Your task to perform on an android device: What is the recent news? Image 0: 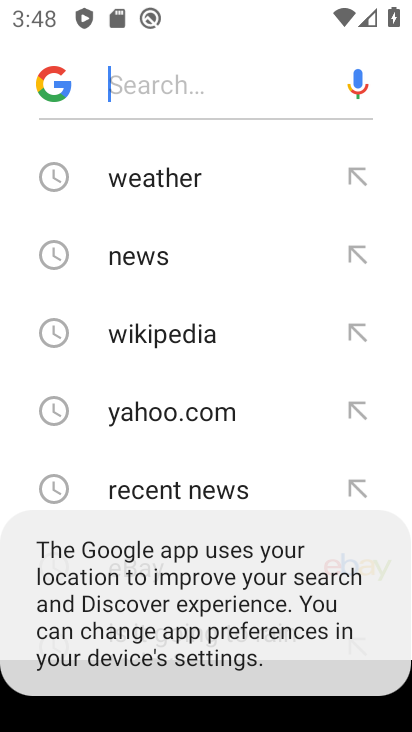
Step 0: press home button
Your task to perform on an android device: What is the recent news? Image 1: 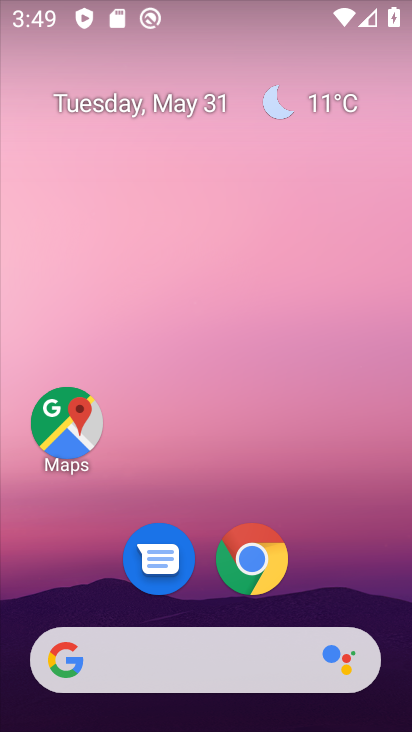
Step 1: click (215, 656)
Your task to perform on an android device: What is the recent news? Image 2: 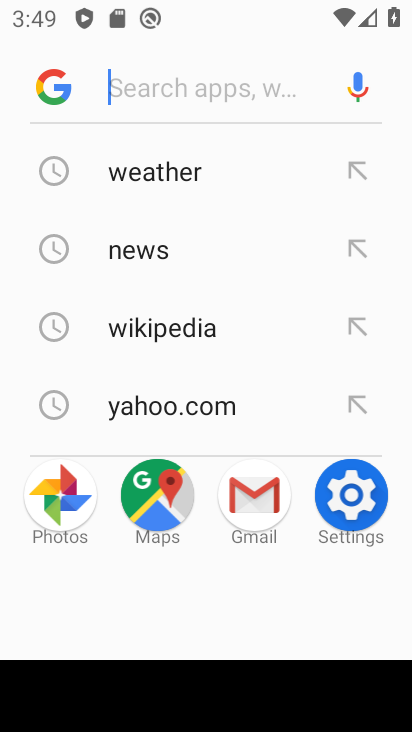
Step 2: type "what is the recent news"
Your task to perform on an android device: What is the recent news? Image 3: 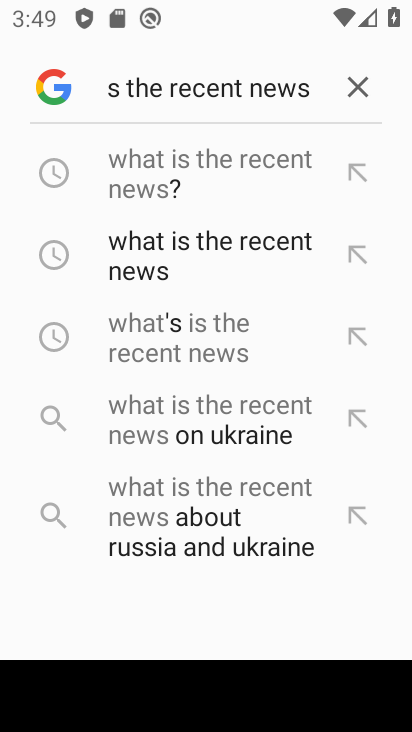
Step 3: click (114, 170)
Your task to perform on an android device: What is the recent news? Image 4: 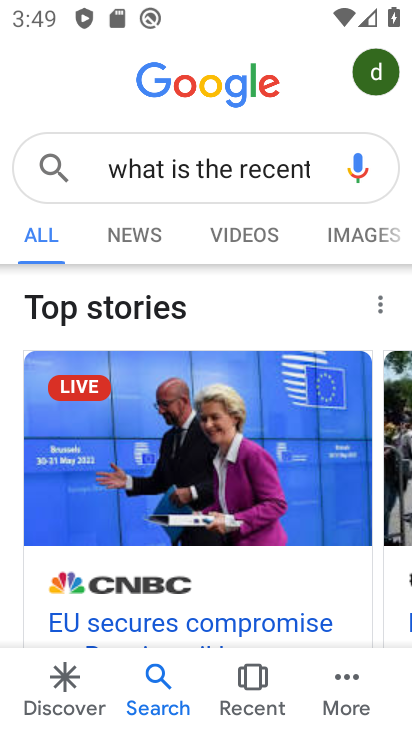
Step 4: click (134, 242)
Your task to perform on an android device: What is the recent news? Image 5: 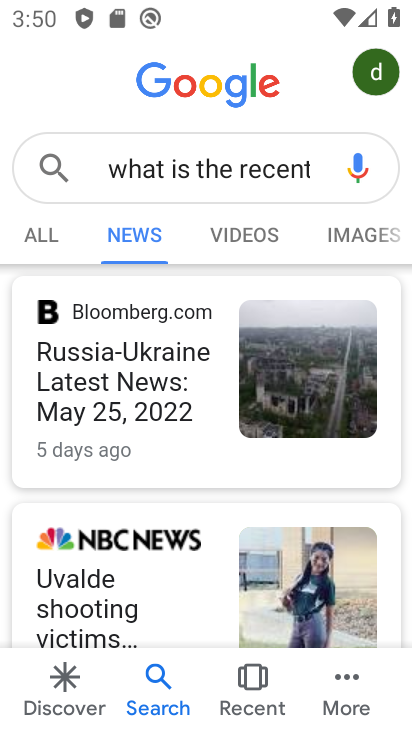
Step 5: task complete